Your task to perform on an android device: Search for seafood restaurants on Google Maps Image 0: 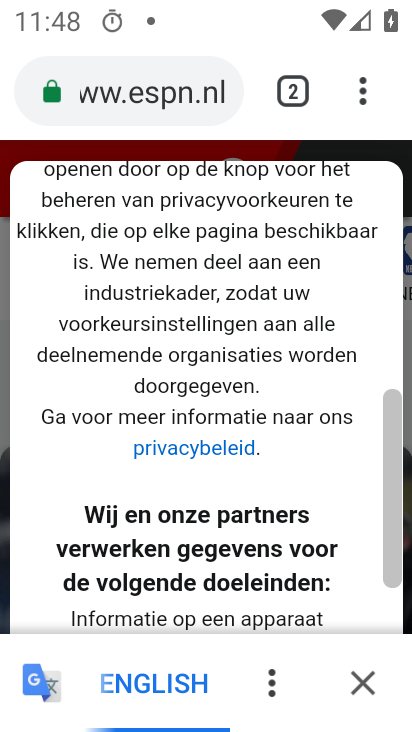
Step 0: press home button
Your task to perform on an android device: Search for seafood restaurants on Google Maps Image 1: 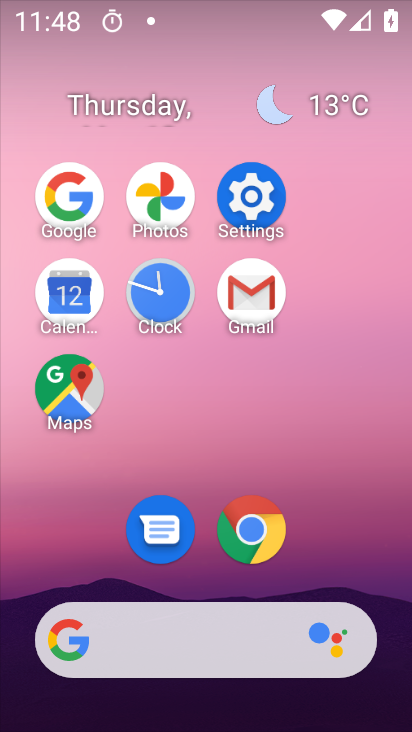
Step 1: click (66, 432)
Your task to perform on an android device: Search for seafood restaurants on Google Maps Image 2: 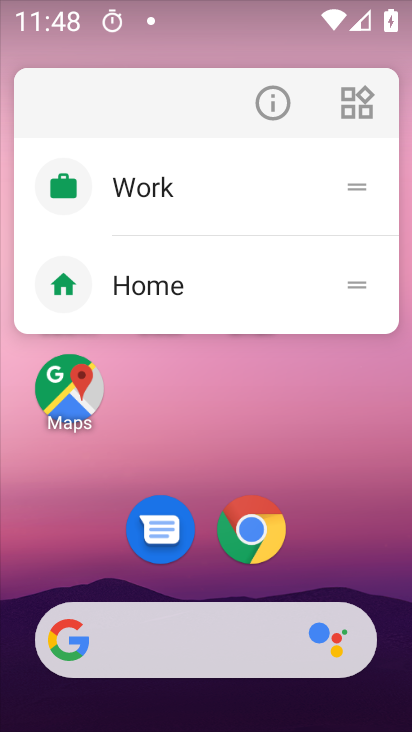
Step 2: click (85, 382)
Your task to perform on an android device: Search for seafood restaurants on Google Maps Image 3: 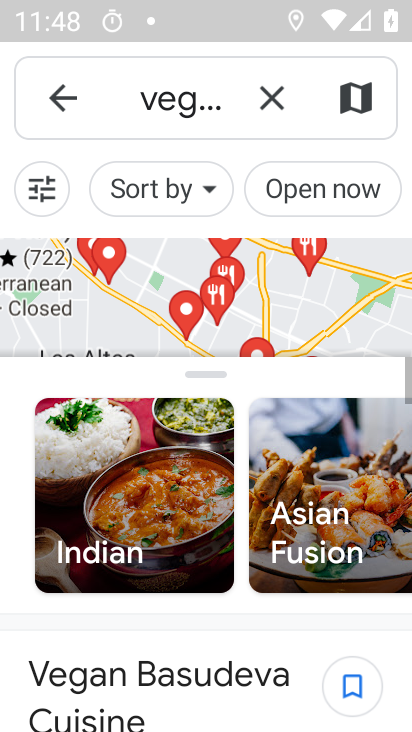
Step 3: click (269, 89)
Your task to perform on an android device: Search for seafood restaurants on Google Maps Image 4: 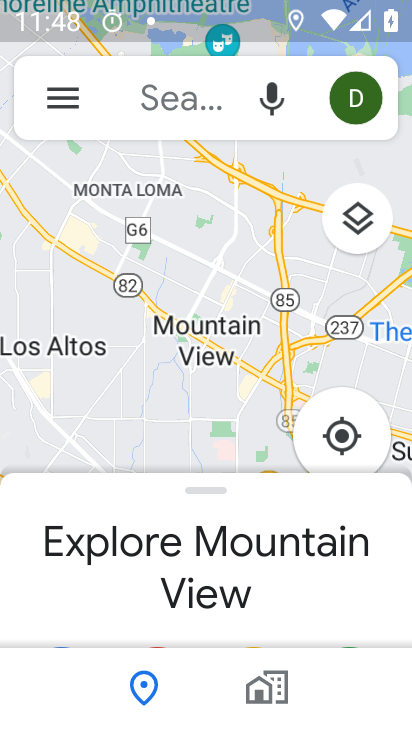
Step 4: click (183, 101)
Your task to perform on an android device: Search for seafood restaurants on Google Maps Image 5: 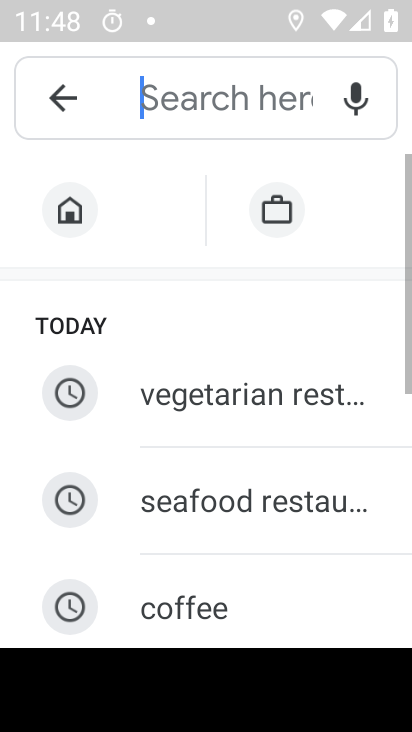
Step 5: click (240, 501)
Your task to perform on an android device: Search for seafood restaurants on Google Maps Image 6: 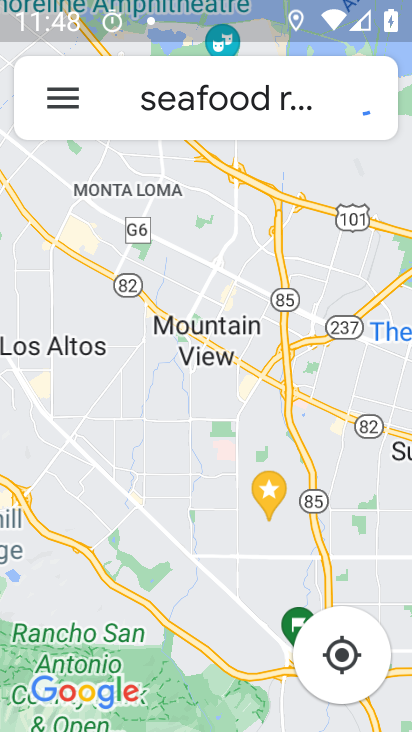
Step 6: task complete